Your task to perform on an android device: all mails in gmail Image 0: 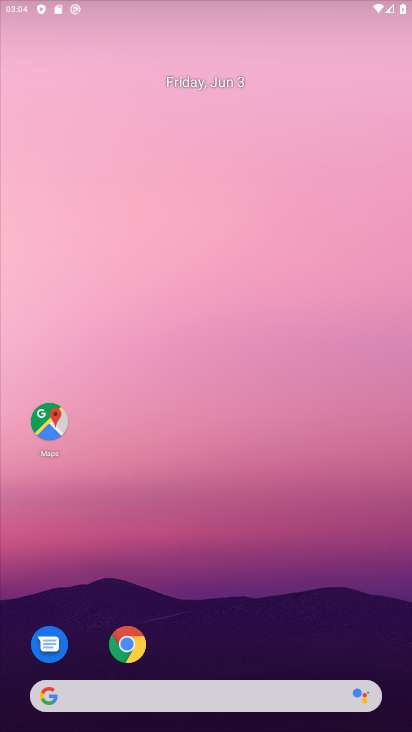
Step 0: press home button
Your task to perform on an android device: all mails in gmail Image 1: 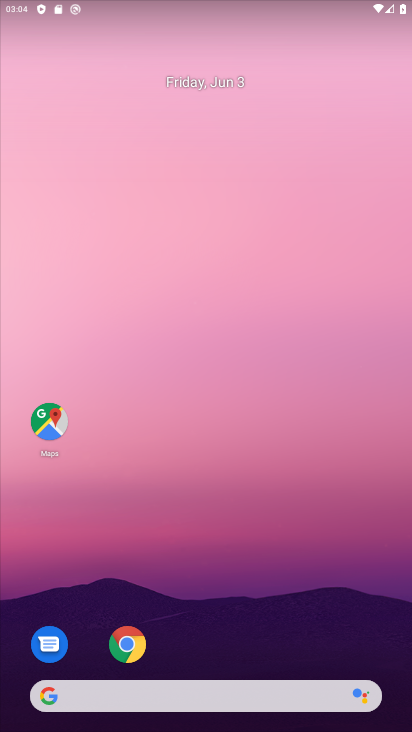
Step 1: drag from (274, 626) to (246, 5)
Your task to perform on an android device: all mails in gmail Image 2: 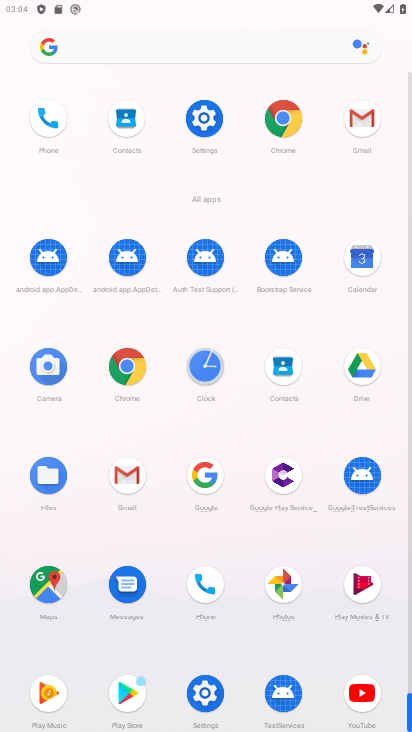
Step 2: click (354, 112)
Your task to perform on an android device: all mails in gmail Image 3: 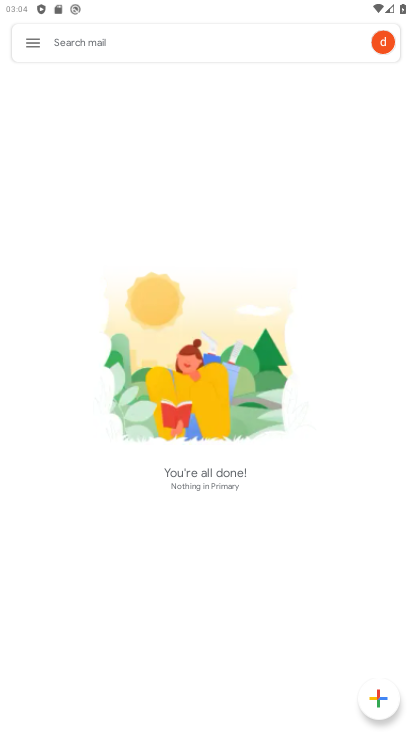
Step 3: click (28, 42)
Your task to perform on an android device: all mails in gmail Image 4: 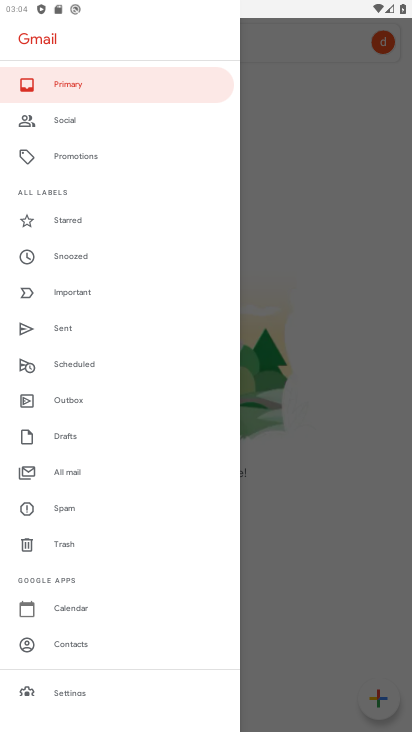
Step 4: click (73, 468)
Your task to perform on an android device: all mails in gmail Image 5: 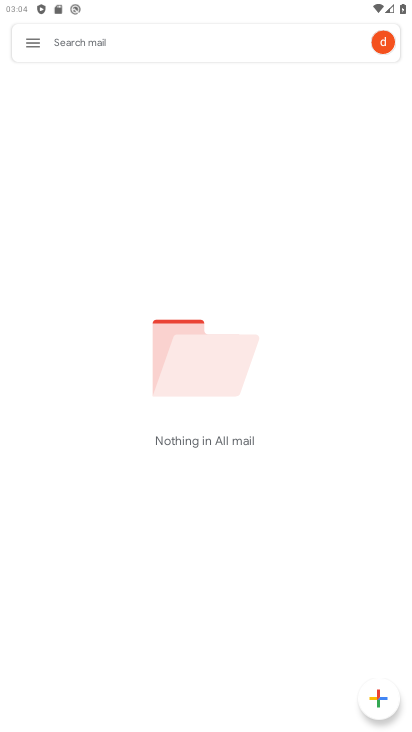
Step 5: task complete